Your task to perform on an android device: turn on bluetooth scan Image 0: 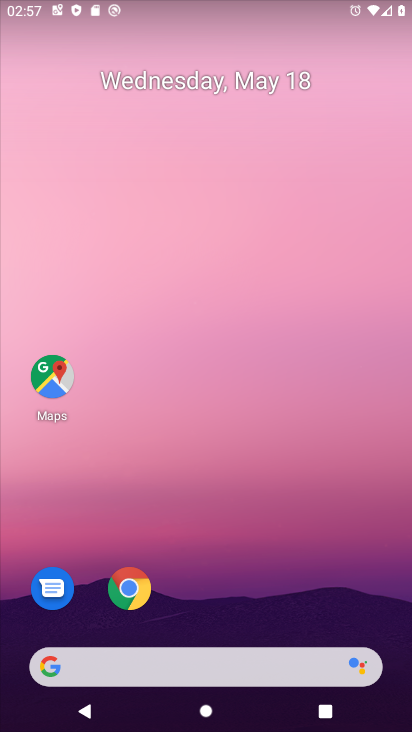
Step 0: press home button
Your task to perform on an android device: turn on bluetooth scan Image 1: 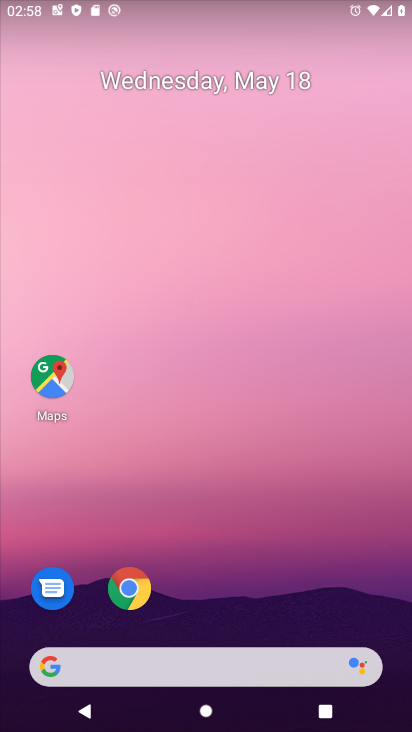
Step 1: drag from (70, 602) to (208, 138)
Your task to perform on an android device: turn on bluetooth scan Image 2: 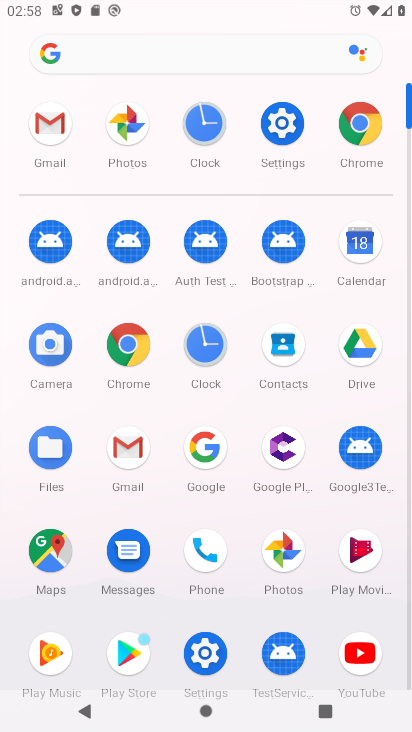
Step 2: click (204, 641)
Your task to perform on an android device: turn on bluetooth scan Image 3: 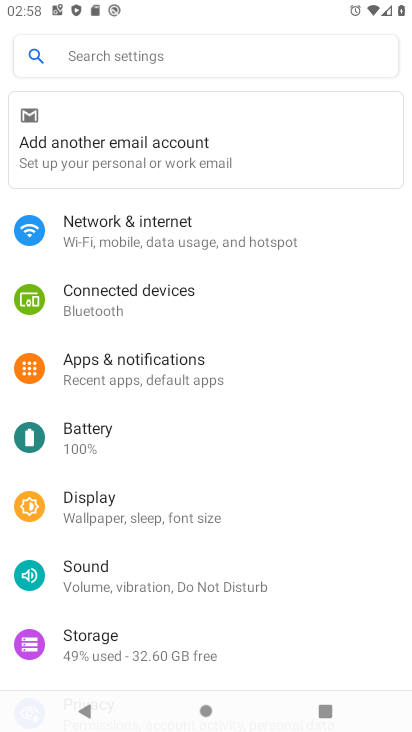
Step 3: drag from (124, 654) to (271, 178)
Your task to perform on an android device: turn on bluetooth scan Image 4: 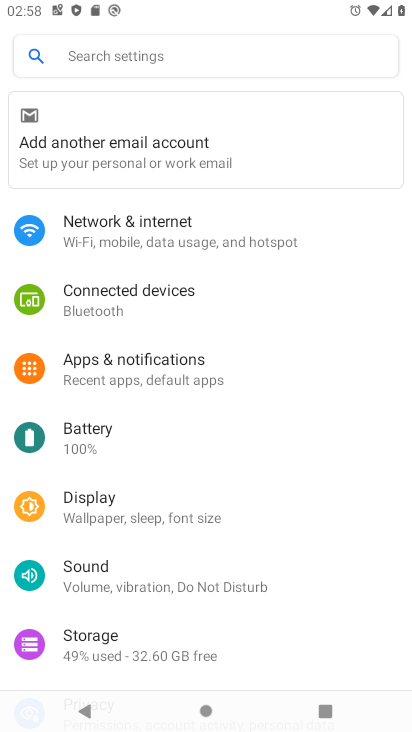
Step 4: drag from (27, 537) to (197, 219)
Your task to perform on an android device: turn on bluetooth scan Image 5: 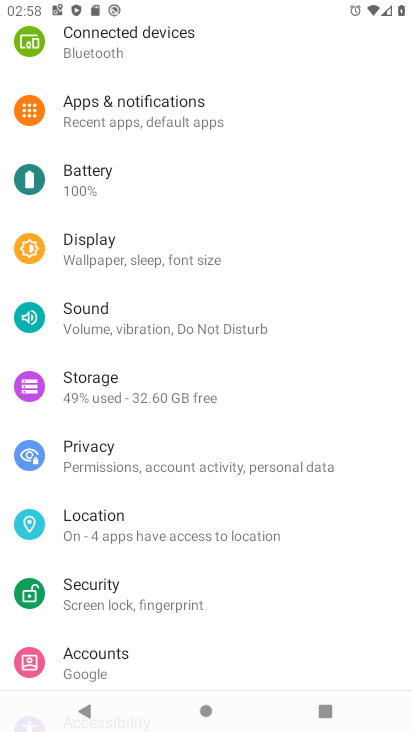
Step 5: click (88, 526)
Your task to perform on an android device: turn on bluetooth scan Image 6: 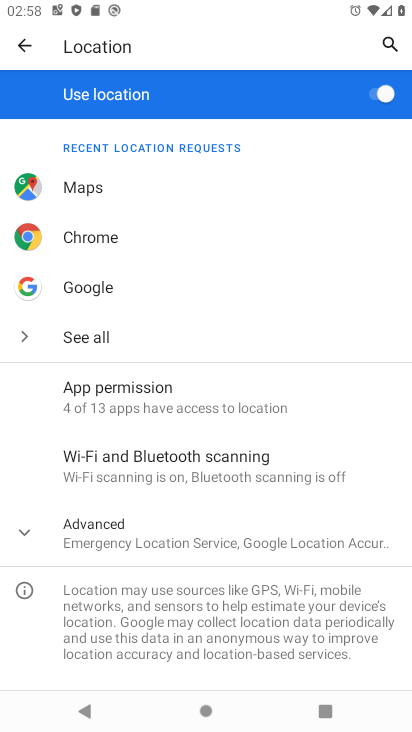
Step 6: click (126, 479)
Your task to perform on an android device: turn on bluetooth scan Image 7: 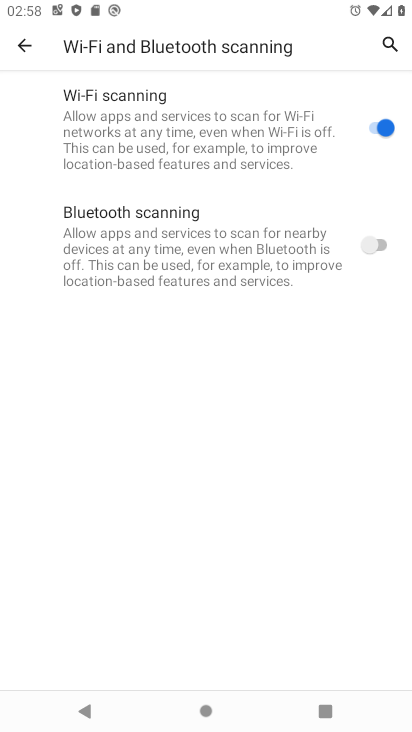
Step 7: click (365, 248)
Your task to perform on an android device: turn on bluetooth scan Image 8: 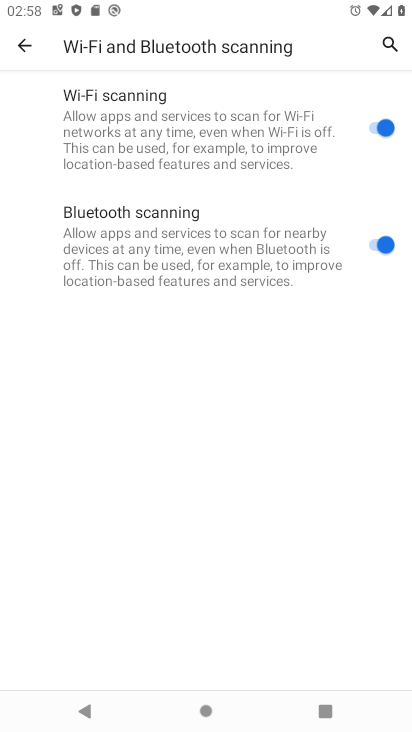
Step 8: task complete